Your task to perform on an android device: Open Android settings Image 0: 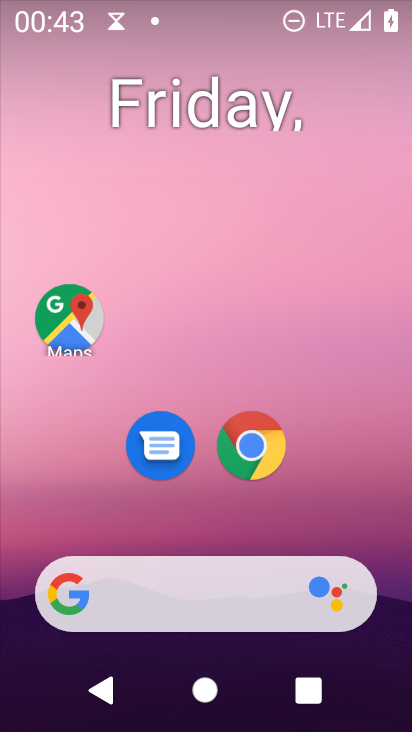
Step 0: drag from (233, 724) to (231, 40)
Your task to perform on an android device: Open Android settings Image 1: 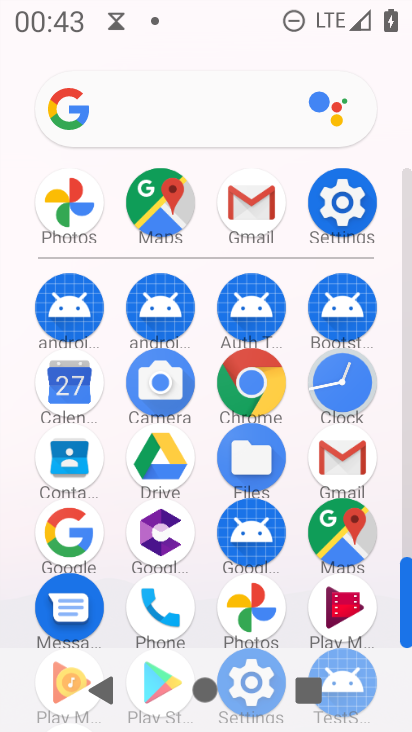
Step 1: click (352, 197)
Your task to perform on an android device: Open Android settings Image 2: 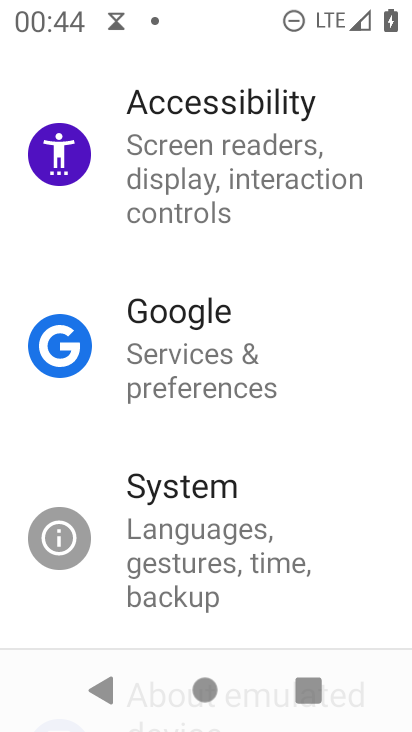
Step 2: task complete